Your task to perform on an android device: Open Yahoo.com Image 0: 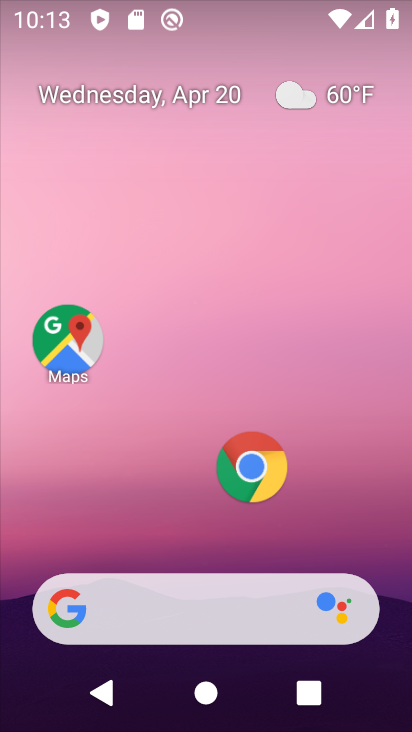
Step 0: click (250, 475)
Your task to perform on an android device: Open Yahoo.com Image 1: 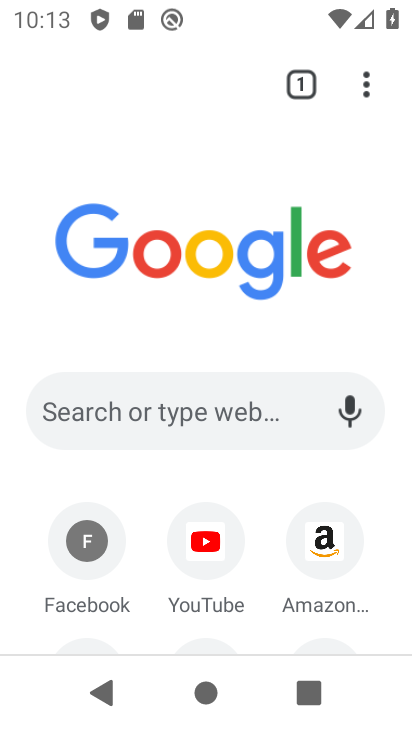
Step 1: click (205, 411)
Your task to perform on an android device: Open Yahoo.com Image 2: 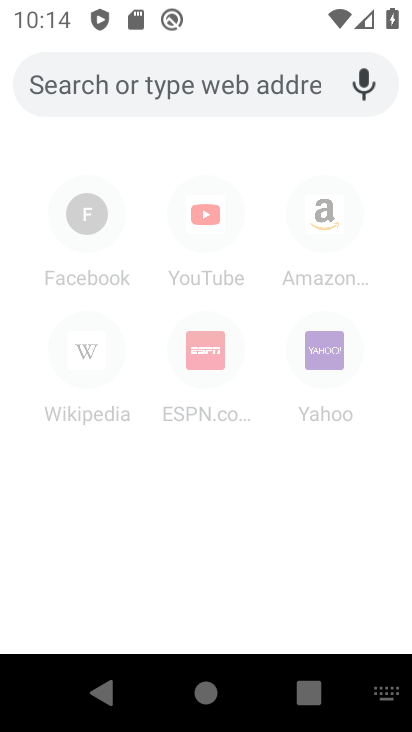
Step 2: type "yahoo.com"
Your task to perform on an android device: Open Yahoo.com Image 3: 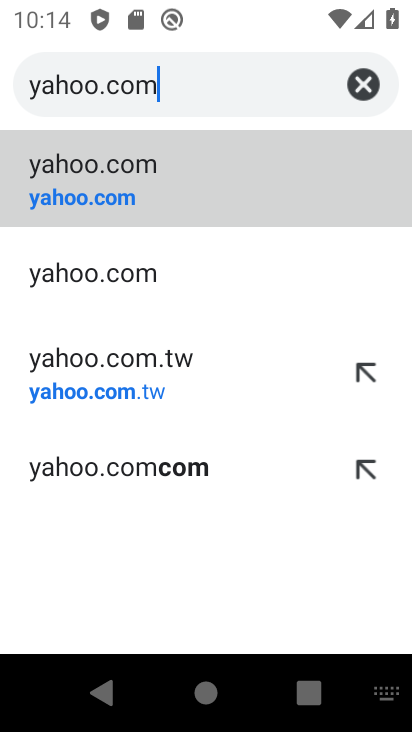
Step 3: click (59, 175)
Your task to perform on an android device: Open Yahoo.com Image 4: 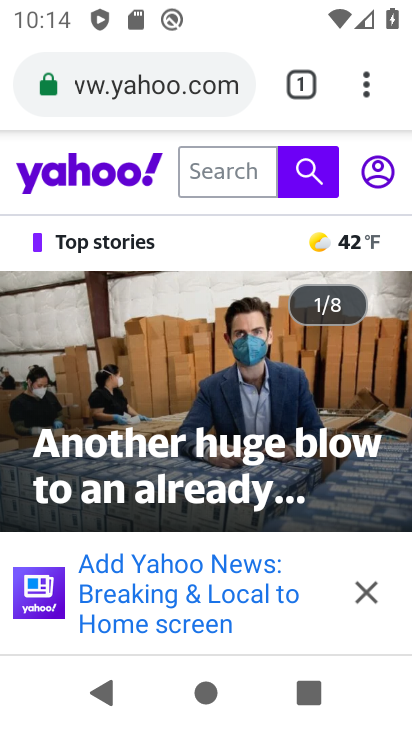
Step 4: task complete